Your task to perform on an android device: Open location settings Image 0: 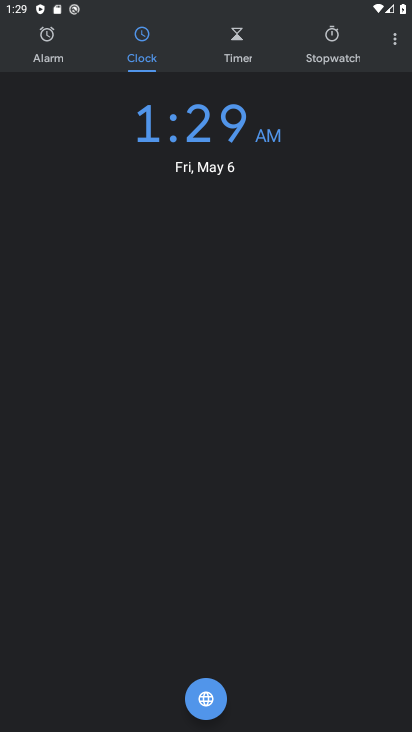
Step 0: press back button
Your task to perform on an android device: Open location settings Image 1: 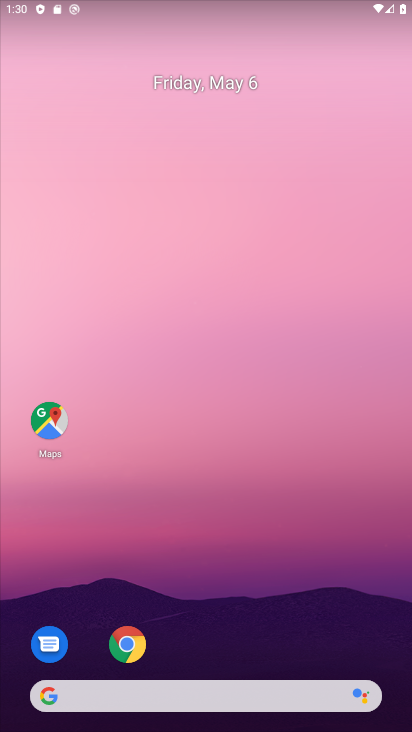
Step 1: drag from (199, 651) to (260, 115)
Your task to perform on an android device: Open location settings Image 2: 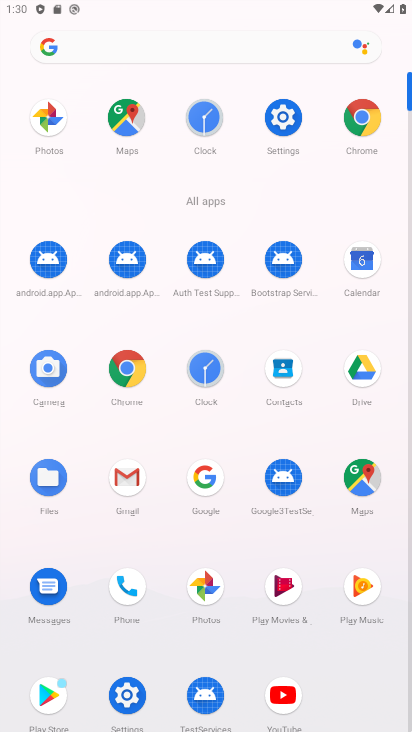
Step 2: click (286, 113)
Your task to perform on an android device: Open location settings Image 3: 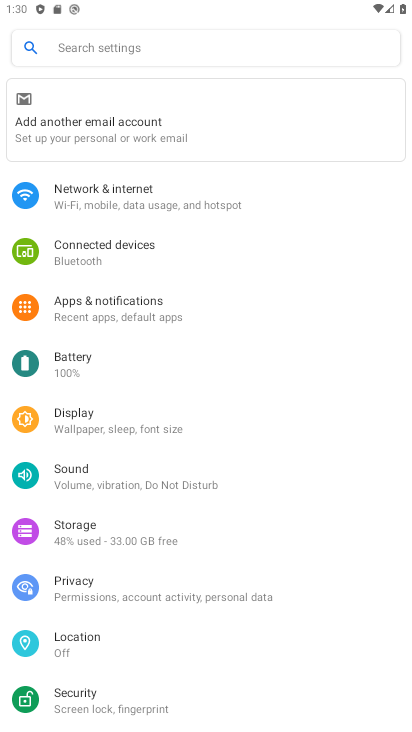
Step 3: click (110, 650)
Your task to perform on an android device: Open location settings Image 4: 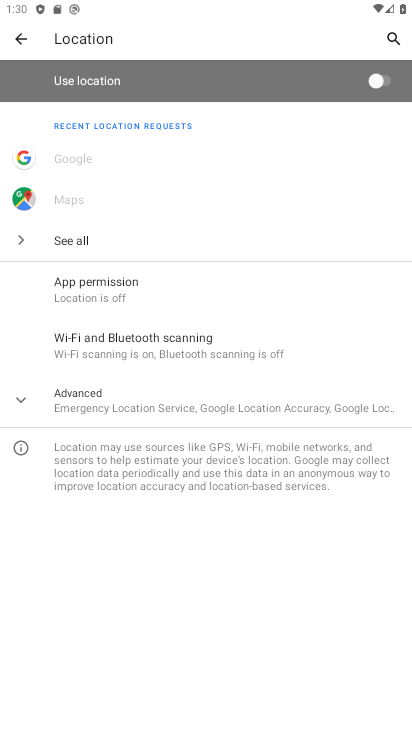
Step 4: task complete